Your task to perform on an android device: check out phone information Image 0: 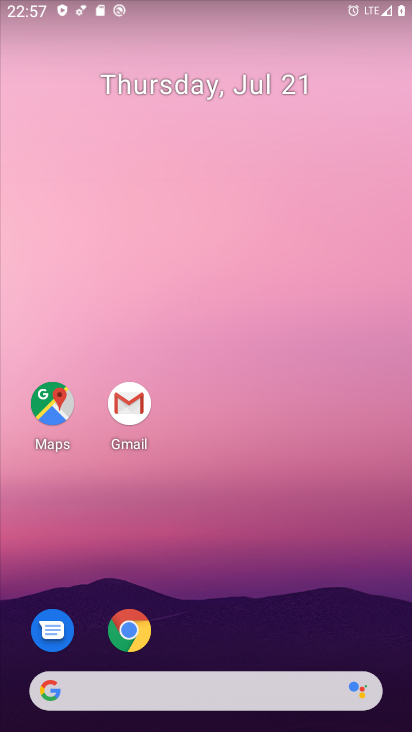
Step 0: drag from (203, 530) to (194, 240)
Your task to perform on an android device: check out phone information Image 1: 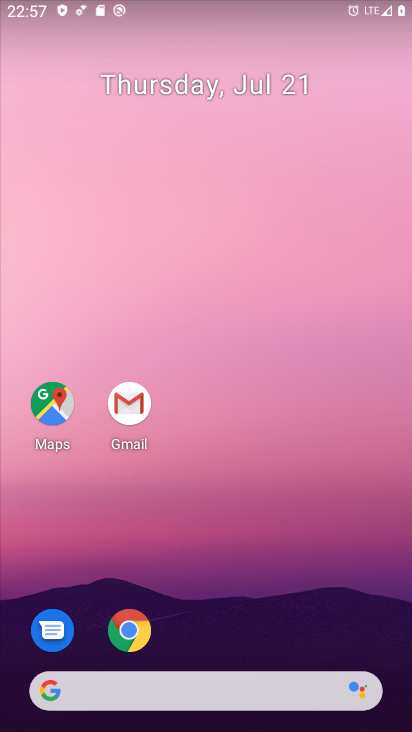
Step 1: drag from (320, 651) to (318, 223)
Your task to perform on an android device: check out phone information Image 2: 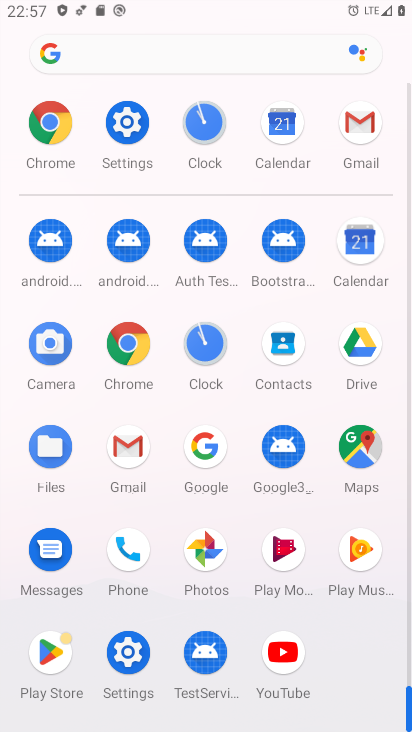
Step 2: click (128, 130)
Your task to perform on an android device: check out phone information Image 3: 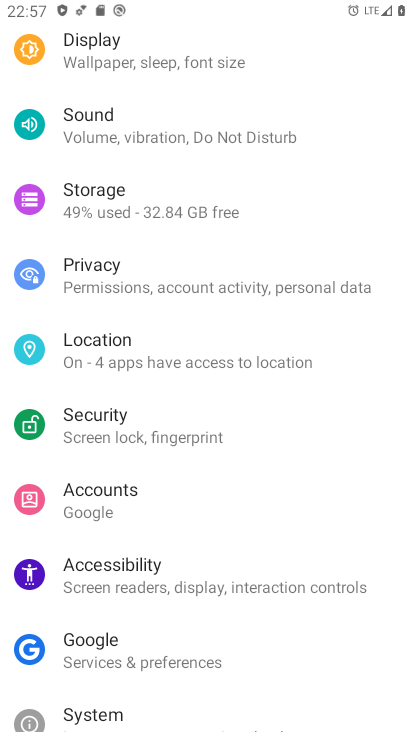
Step 3: drag from (50, 615) to (64, 232)
Your task to perform on an android device: check out phone information Image 4: 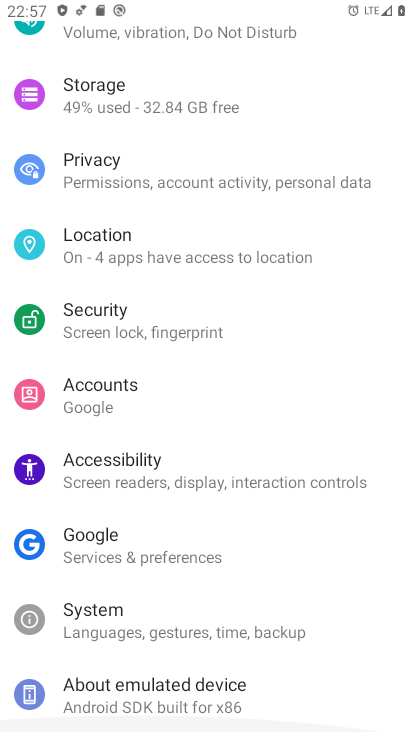
Step 4: drag from (152, 604) to (165, 292)
Your task to perform on an android device: check out phone information Image 5: 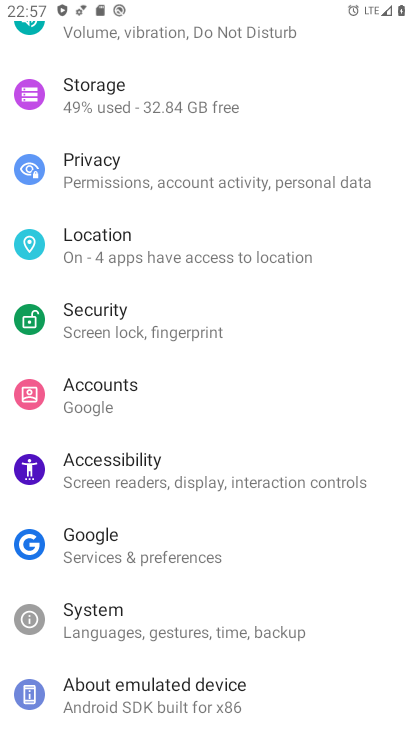
Step 5: drag from (191, 564) to (191, 271)
Your task to perform on an android device: check out phone information Image 6: 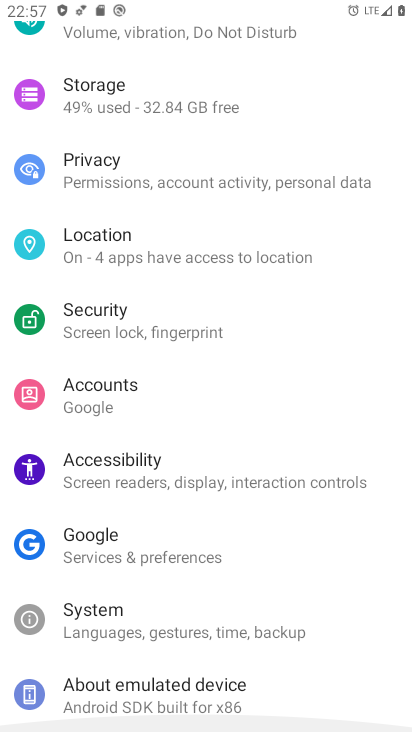
Step 6: drag from (159, 609) to (148, 222)
Your task to perform on an android device: check out phone information Image 7: 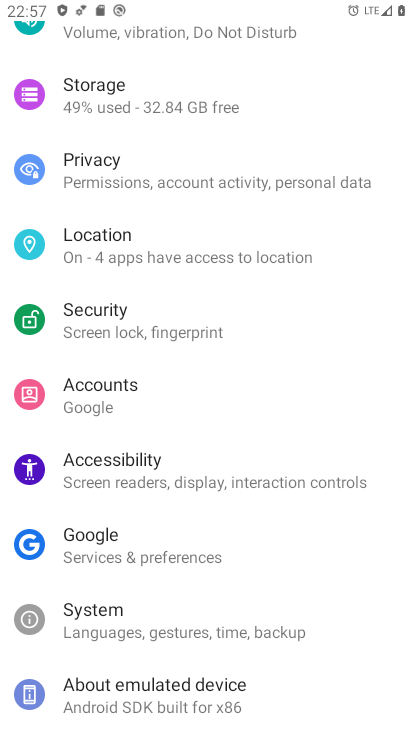
Step 7: click (101, 698)
Your task to perform on an android device: check out phone information Image 8: 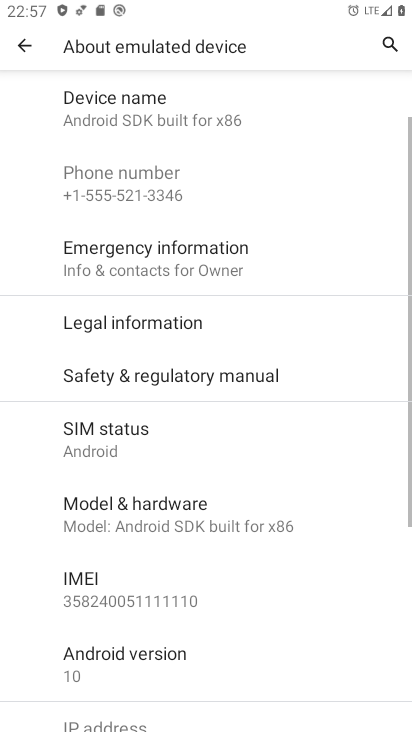
Step 8: click (128, 107)
Your task to perform on an android device: check out phone information Image 9: 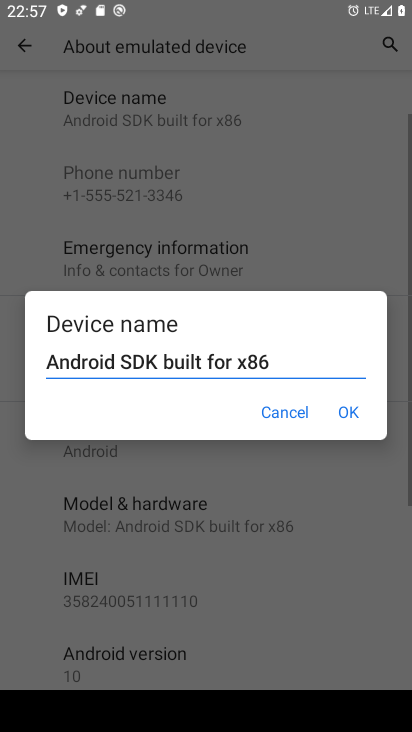
Step 9: click (294, 411)
Your task to perform on an android device: check out phone information Image 10: 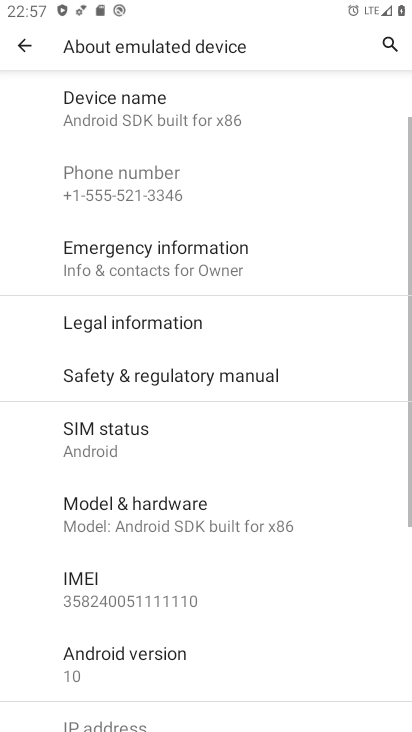
Step 10: drag from (146, 566) to (137, 181)
Your task to perform on an android device: check out phone information Image 11: 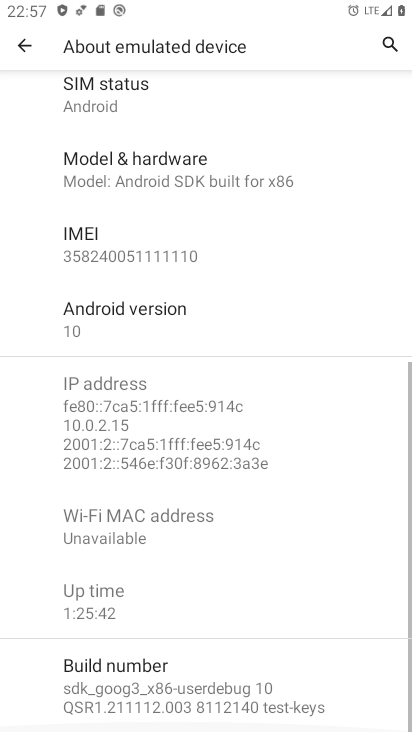
Step 11: drag from (144, 577) to (139, 260)
Your task to perform on an android device: check out phone information Image 12: 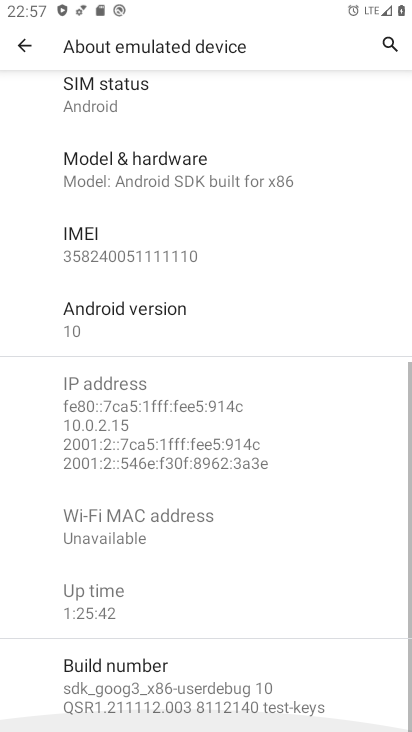
Step 12: drag from (142, 540) to (162, 357)
Your task to perform on an android device: check out phone information Image 13: 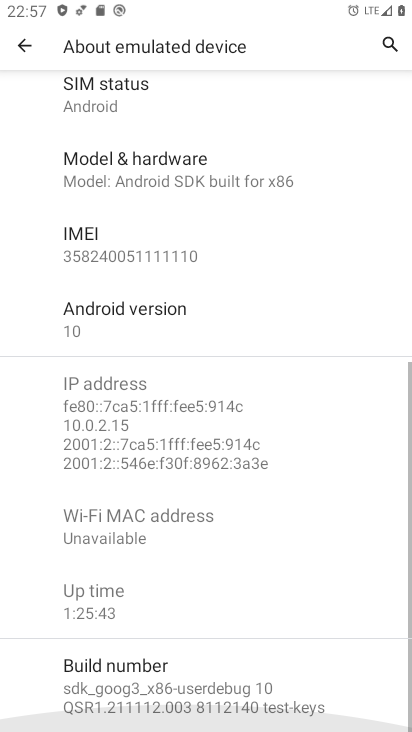
Step 13: drag from (205, 582) to (214, 241)
Your task to perform on an android device: check out phone information Image 14: 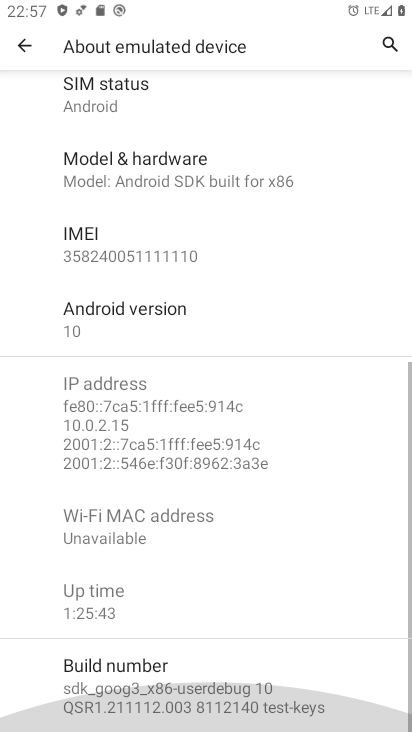
Step 14: drag from (190, 172) to (199, 423)
Your task to perform on an android device: check out phone information Image 15: 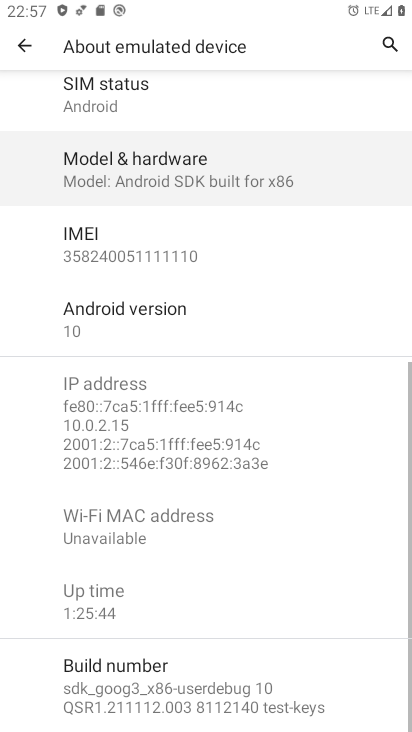
Step 15: click (162, 571)
Your task to perform on an android device: check out phone information Image 16: 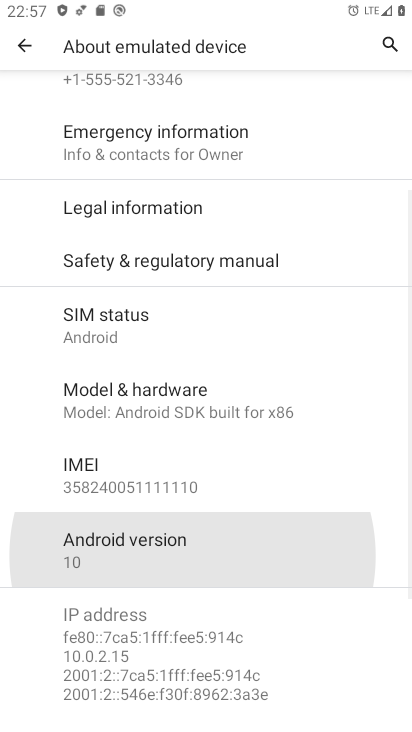
Step 16: task complete